Your task to perform on an android device: Open the stopwatch Image 0: 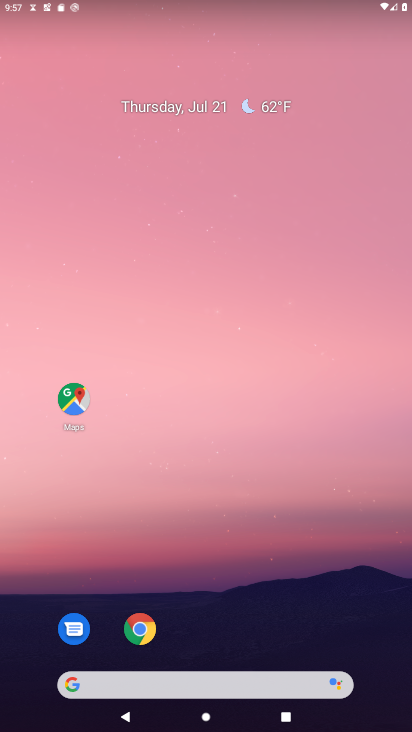
Step 0: drag from (266, 589) to (254, 167)
Your task to perform on an android device: Open the stopwatch Image 1: 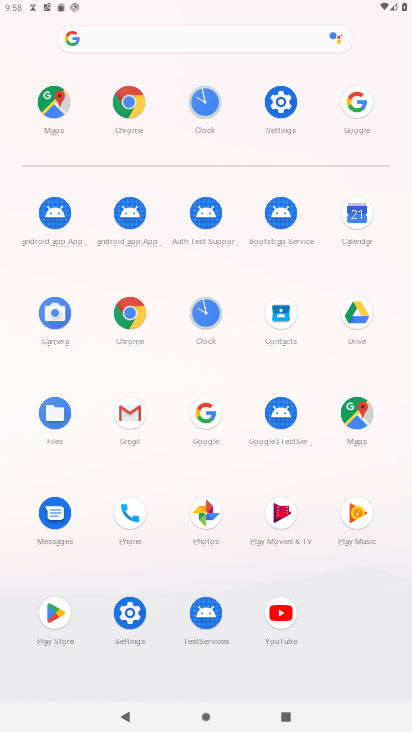
Step 1: click (206, 303)
Your task to perform on an android device: Open the stopwatch Image 2: 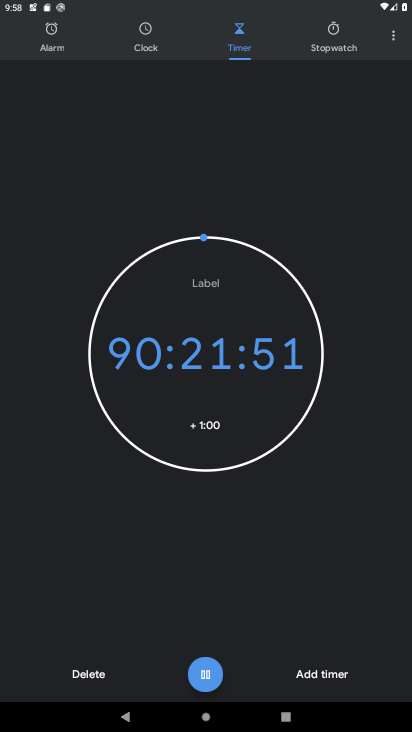
Step 2: click (355, 31)
Your task to perform on an android device: Open the stopwatch Image 3: 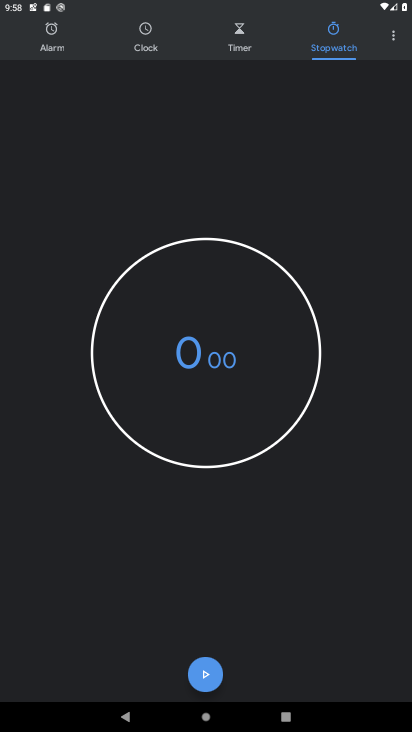
Step 3: task complete